Your task to perform on an android device: Open Wikipedia Image 0: 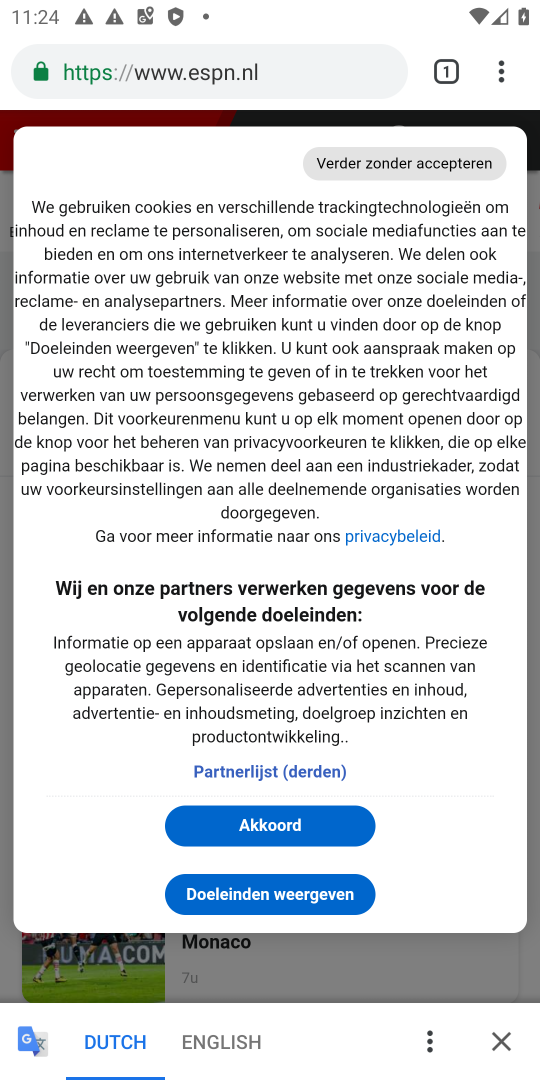
Step 0: click (299, 80)
Your task to perform on an android device: Open Wikipedia Image 1: 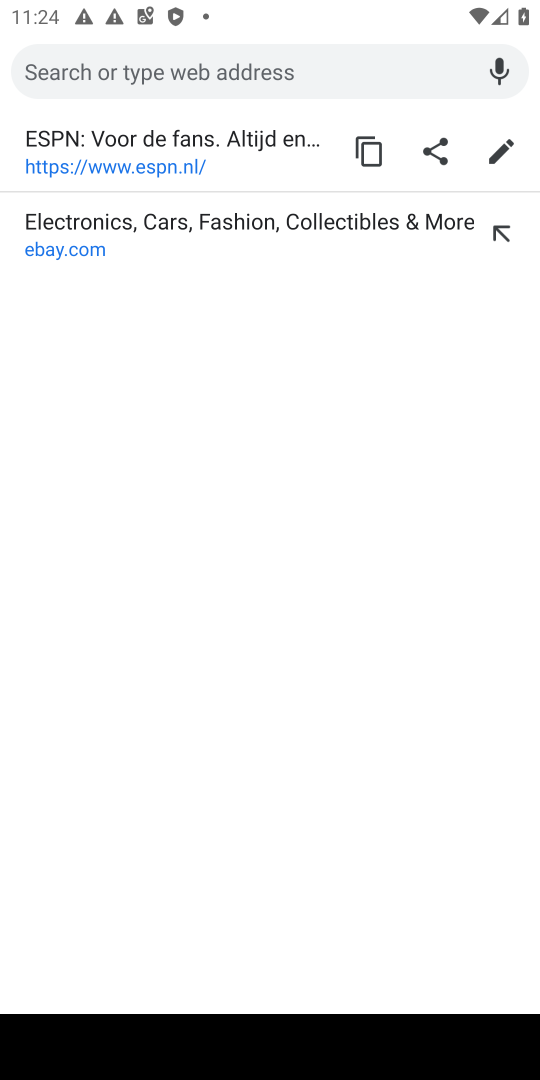
Step 1: type "wikipedia"
Your task to perform on an android device: Open Wikipedia Image 2: 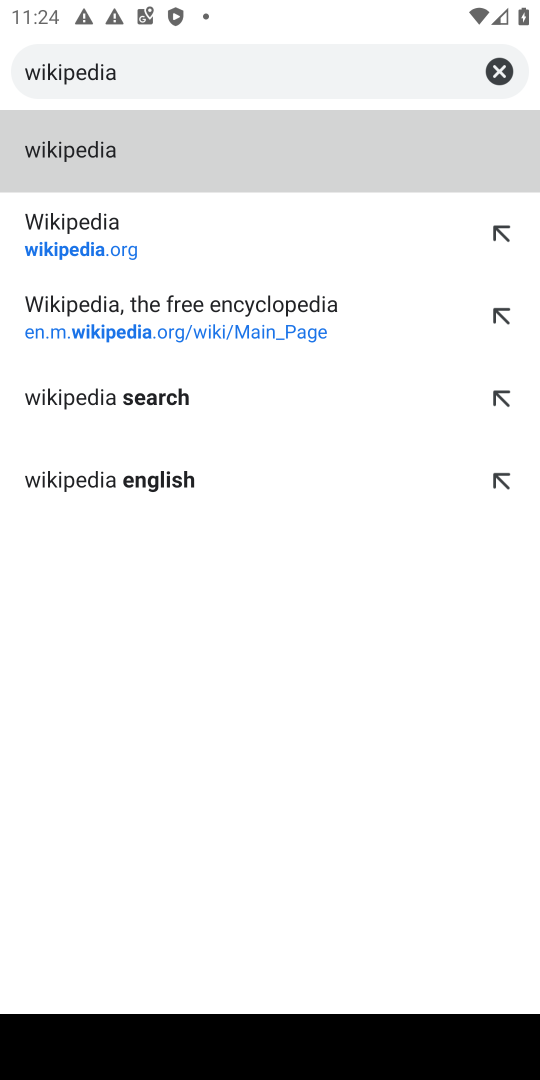
Step 2: click (87, 237)
Your task to perform on an android device: Open Wikipedia Image 3: 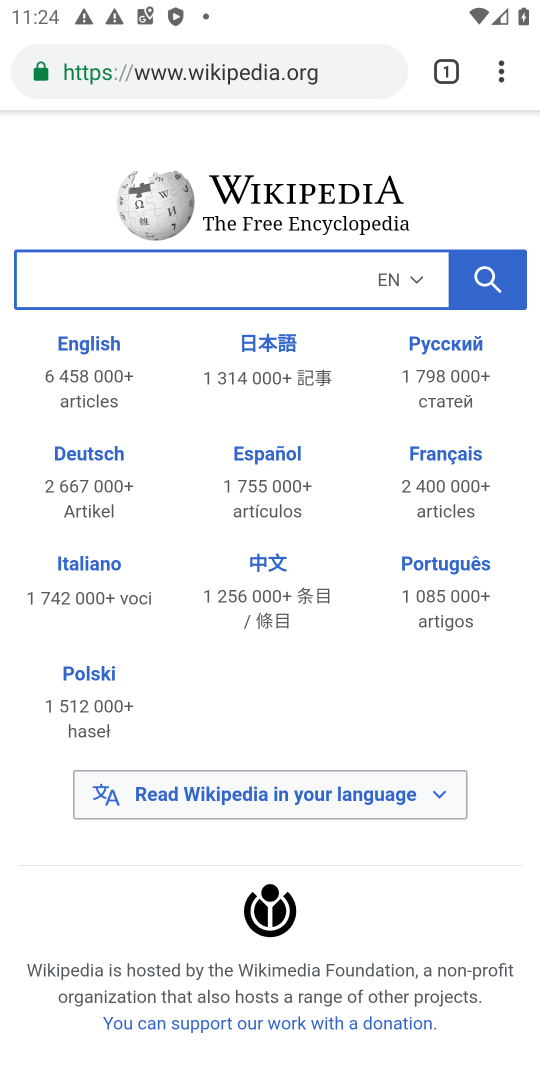
Step 3: task complete